Your task to perform on an android device: Search for duracell triple a on newegg, select the first entry, and add it to the cart. Image 0: 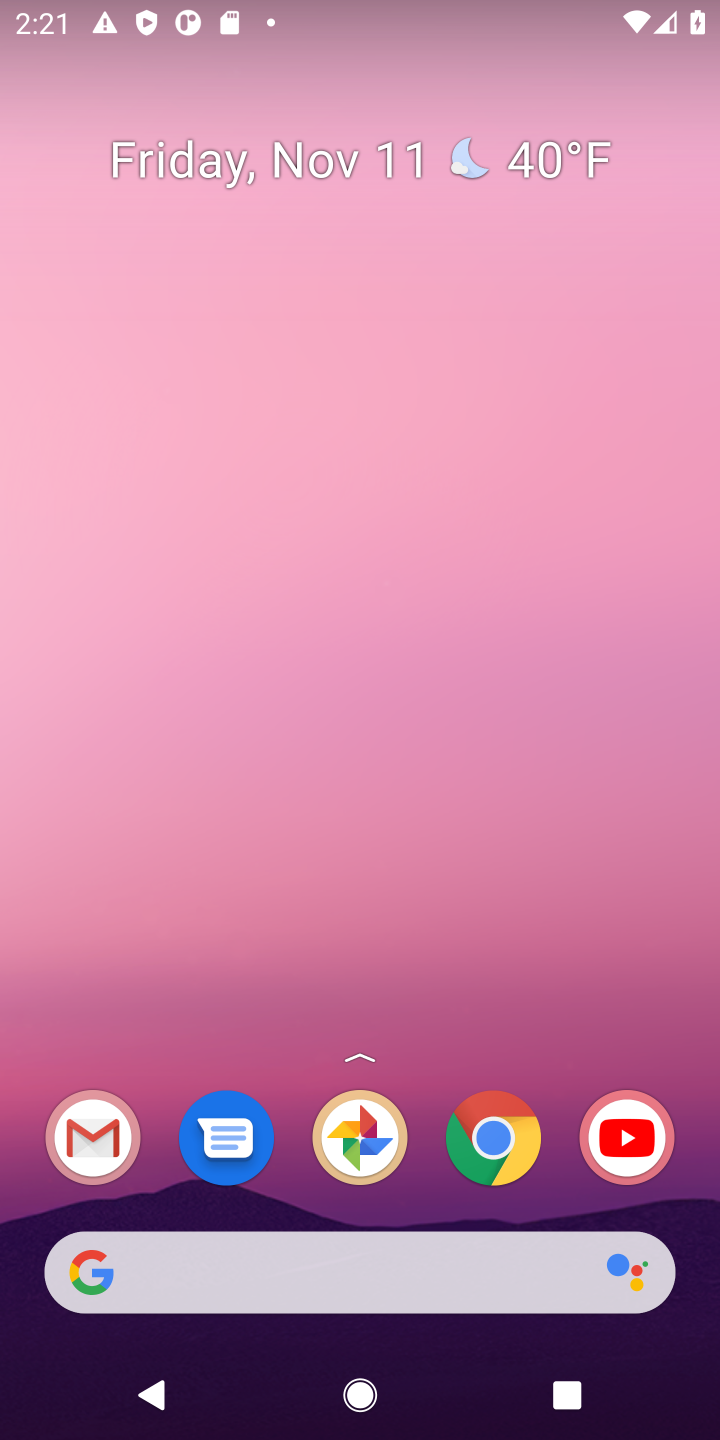
Step 0: click (506, 1116)
Your task to perform on an android device: Search for duracell triple a on newegg, select the first entry, and add it to the cart. Image 1: 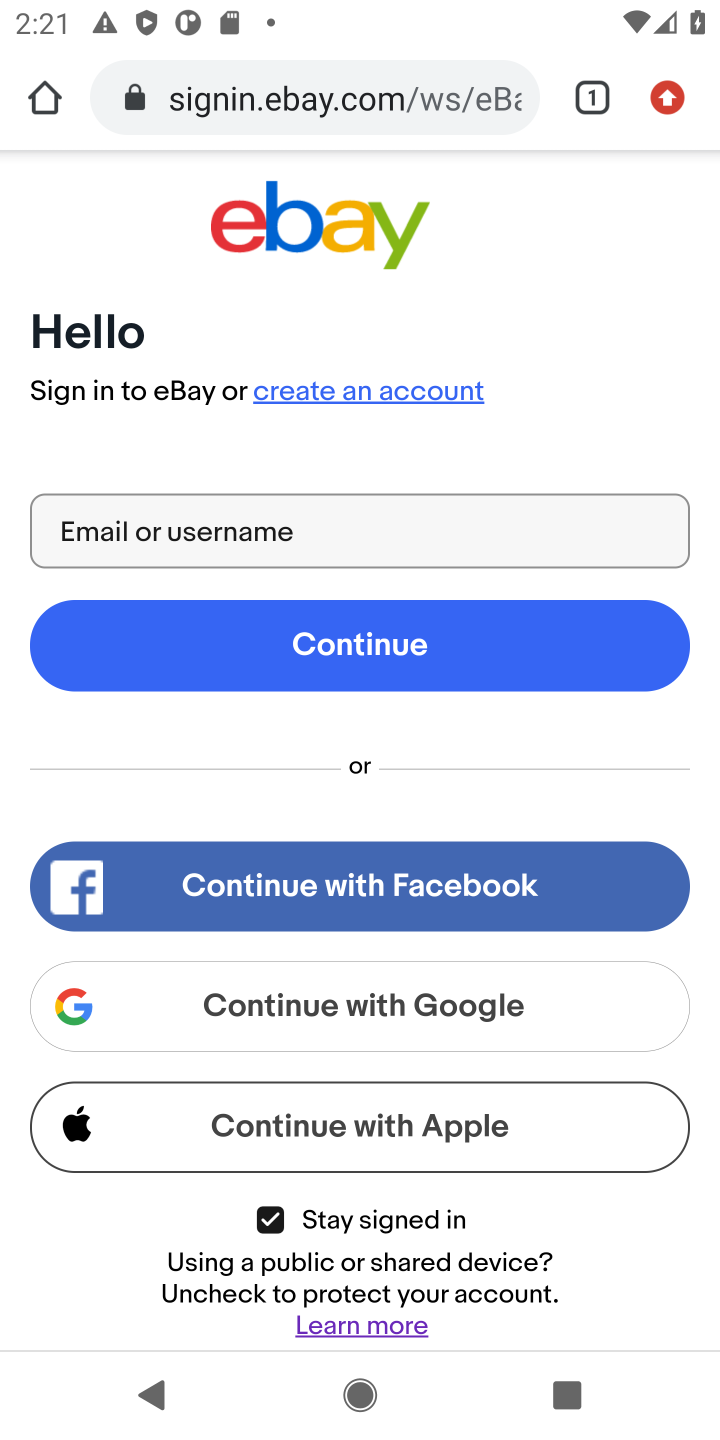
Step 1: click (359, 113)
Your task to perform on an android device: Search for duracell triple a on newegg, select the first entry, and add it to the cart. Image 2: 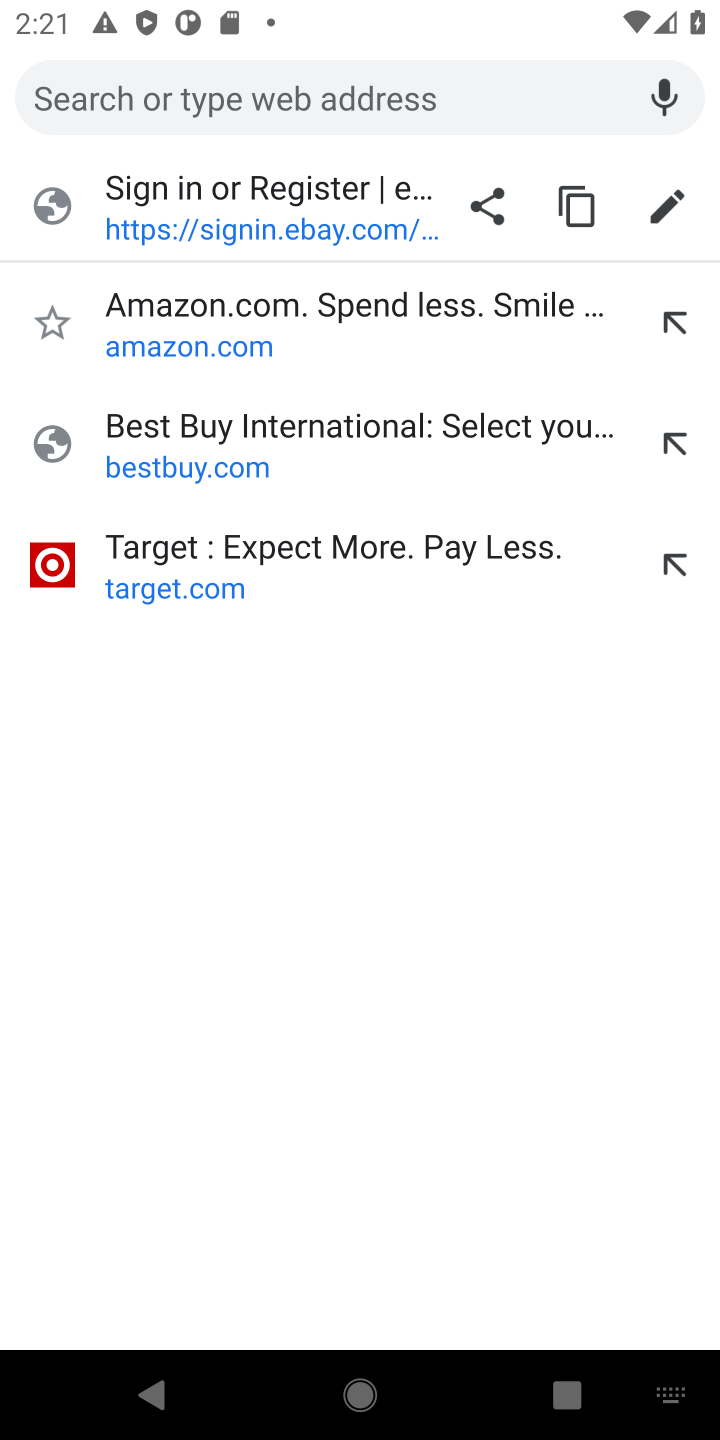
Step 2: type "newegg"
Your task to perform on an android device: Search for duracell triple a on newegg, select the first entry, and add it to the cart. Image 3: 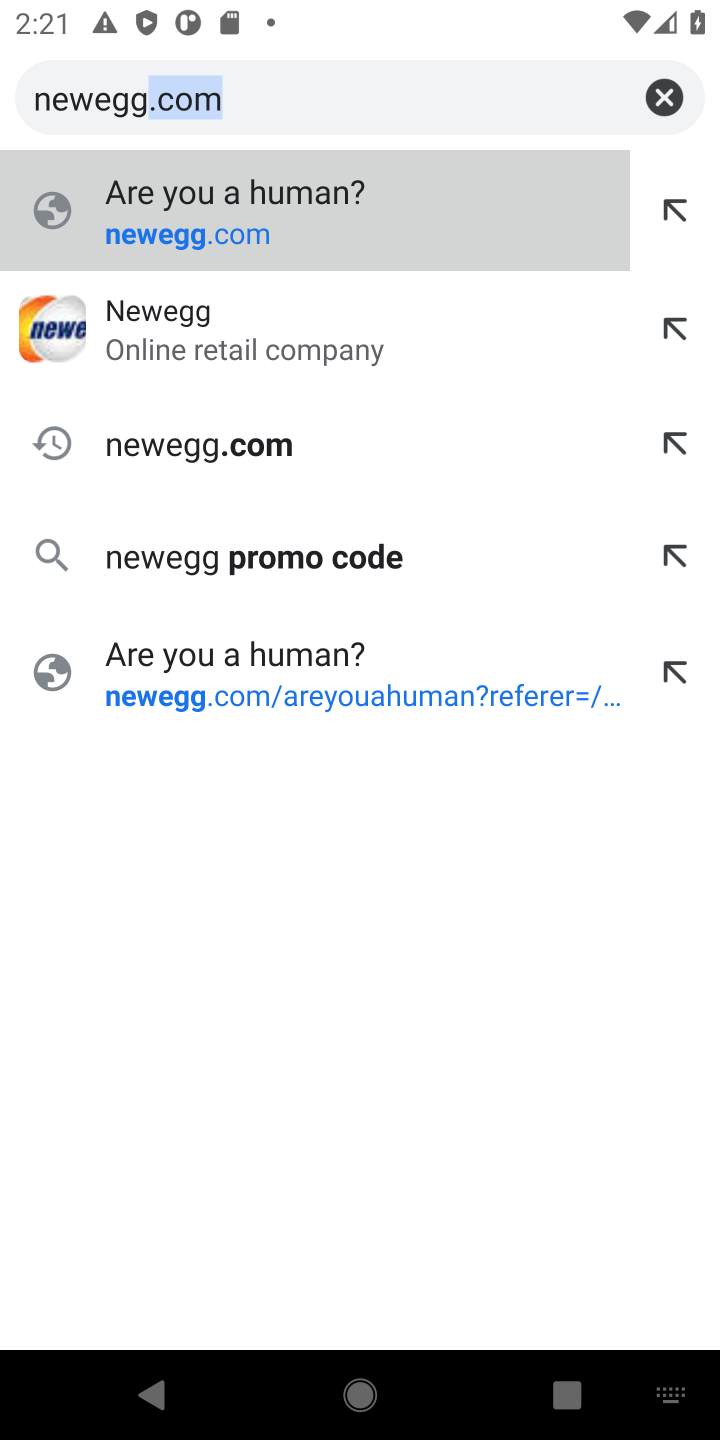
Step 3: press enter
Your task to perform on an android device: Search for duracell triple a on newegg, select the first entry, and add it to the cart. Image 4: 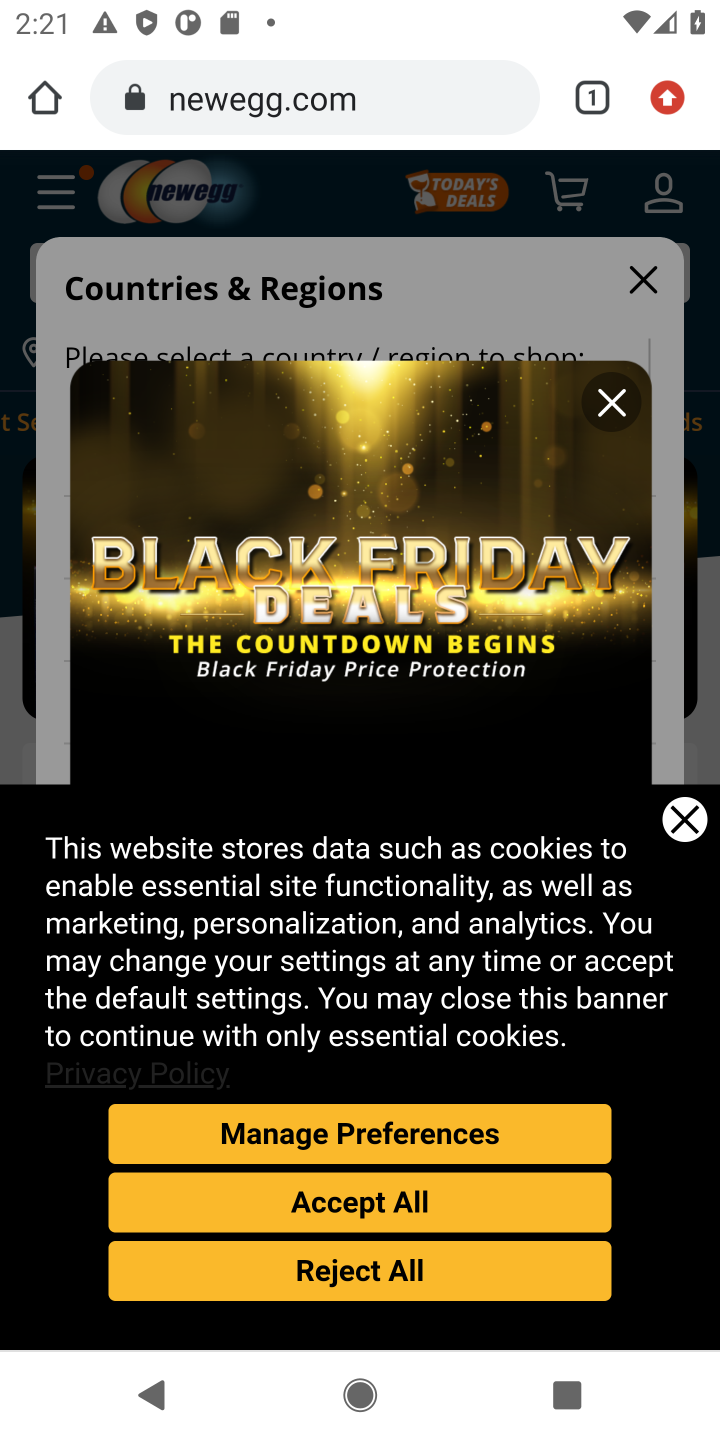
Step 4: click (464, 1209)
Your task to perform on an android device: Search for duracell triple a on newegg, select the first entry, and add it to the cart. Image 5: 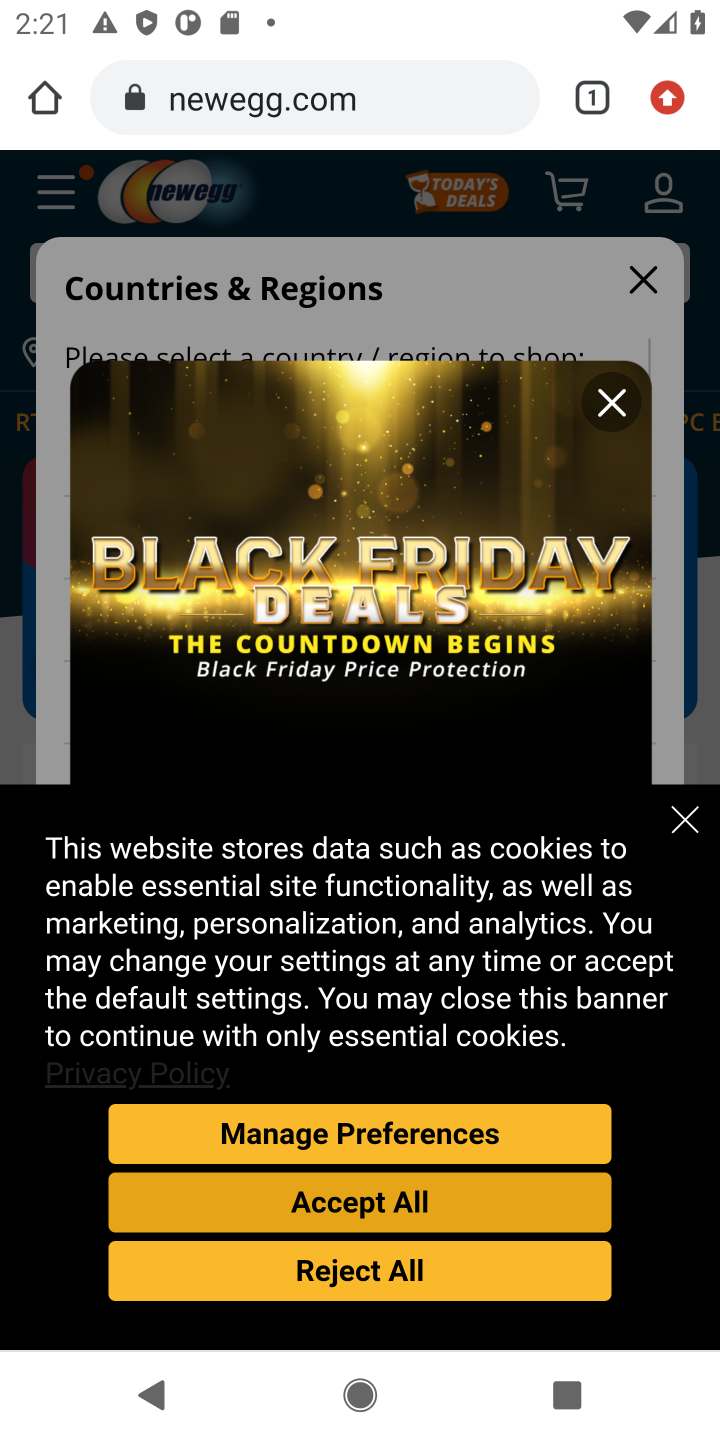
Step 5: click (622, 411)
Your task to perform on an android device: Search for duracell triple a on newegg, select the first entry, and add it to the cart. Image 6: 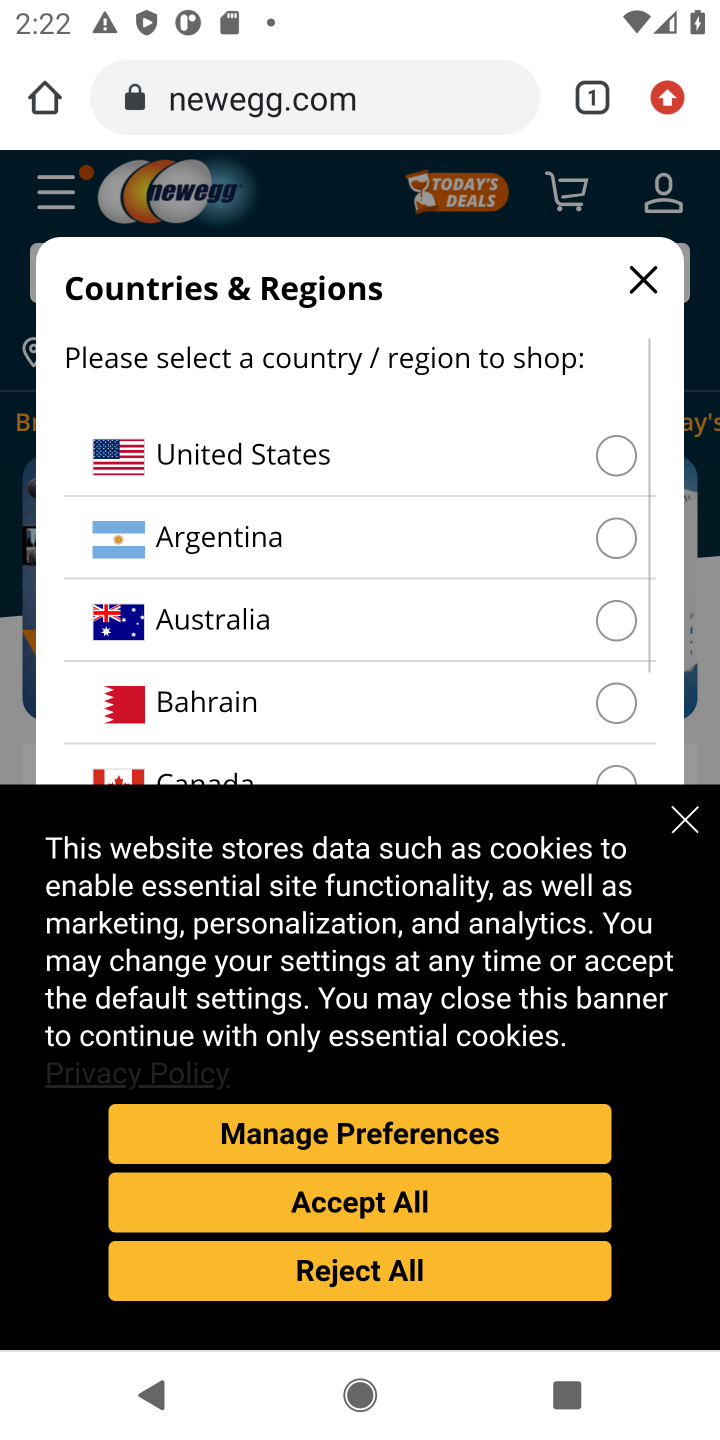
Step 6: click (624, 457)
Your task to perform on an android device: Search for duracell triple a on newegg, select the first entry, and add it to the cart. Image 7: 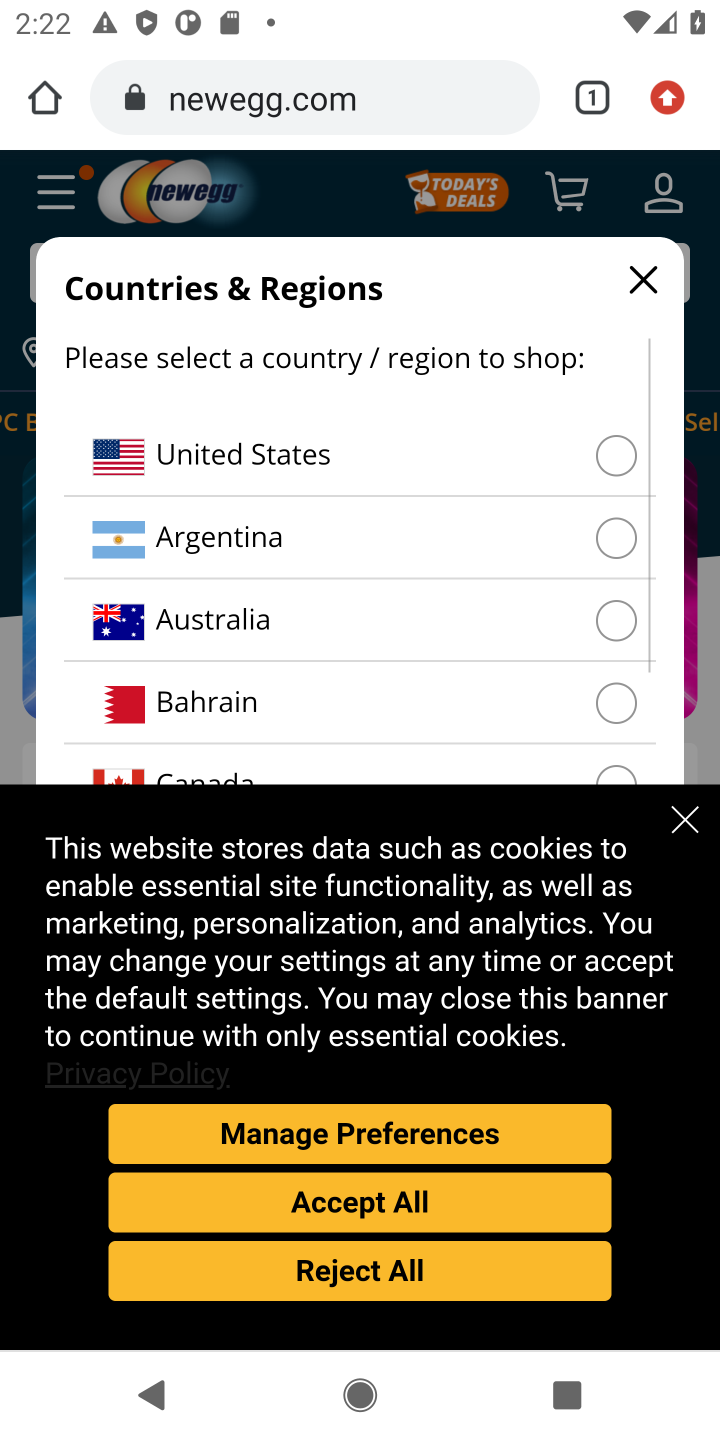
Step 7: click (362, 1180)
Your task to perform on an android device: Search for duracell triple a on newegg, select the first entry, and add it to the cart. Image 8: 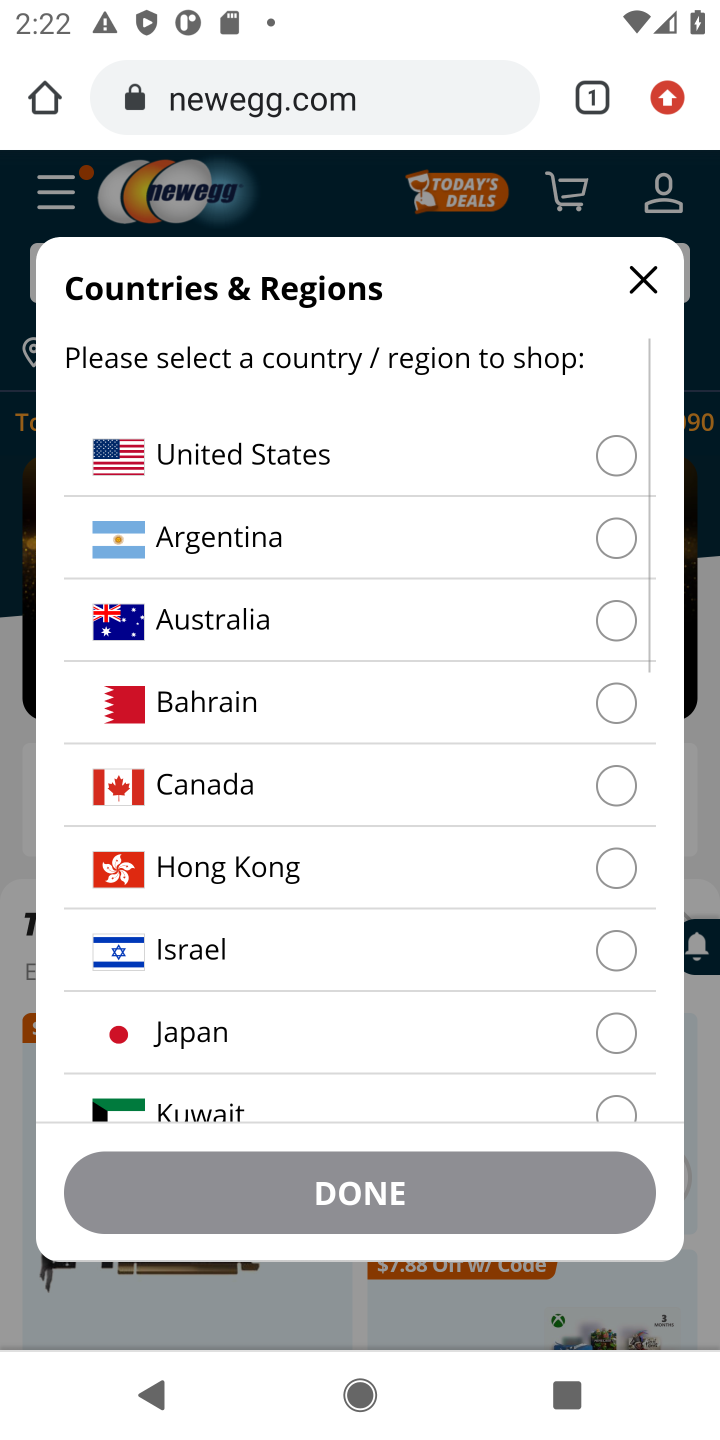
Step 8: click (608, 454)
Your task to perform on an android device: Search for duracell triple a on newegg, select the first entry, and add it to the cart. Image 9: 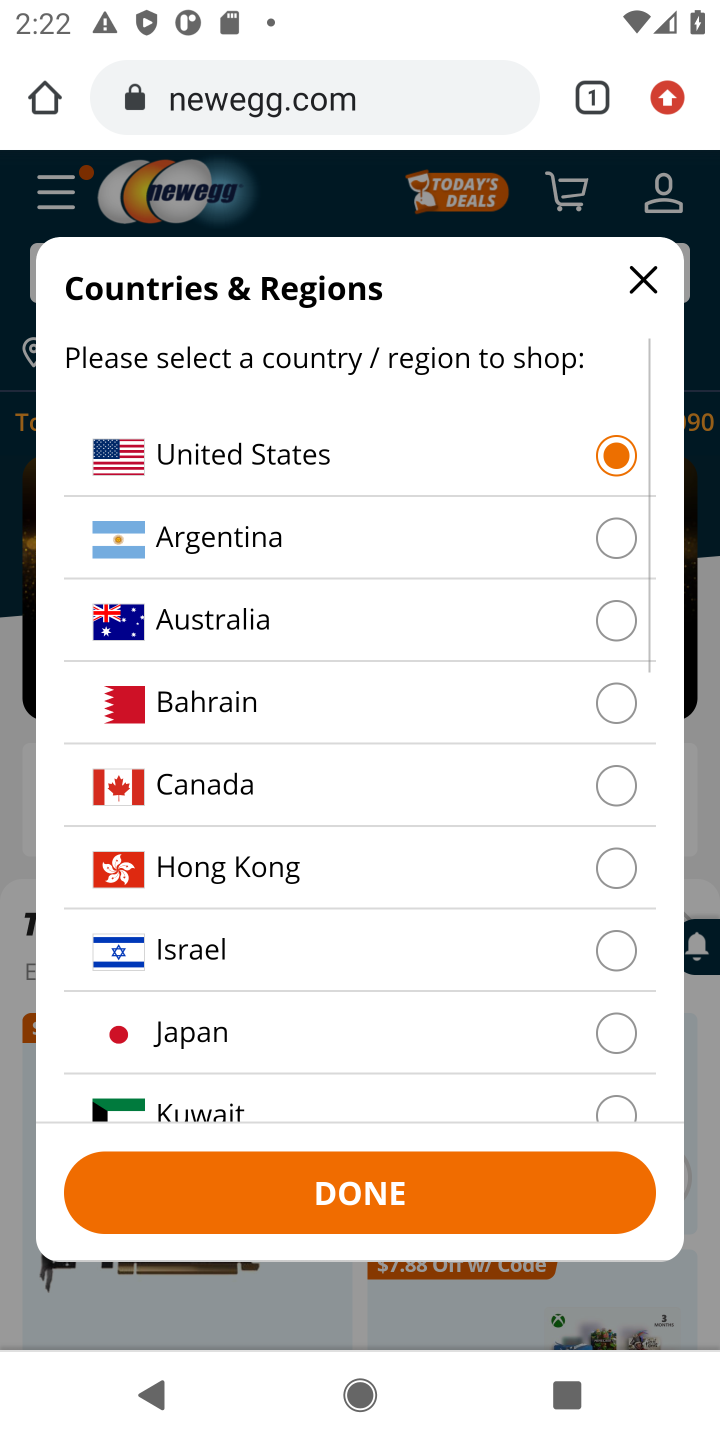
Step 9: click (456, 1170)
Your task to perform on an android device: Search for duracell triple a on newegg, select the first entry, and add it to the cart. Image 10: 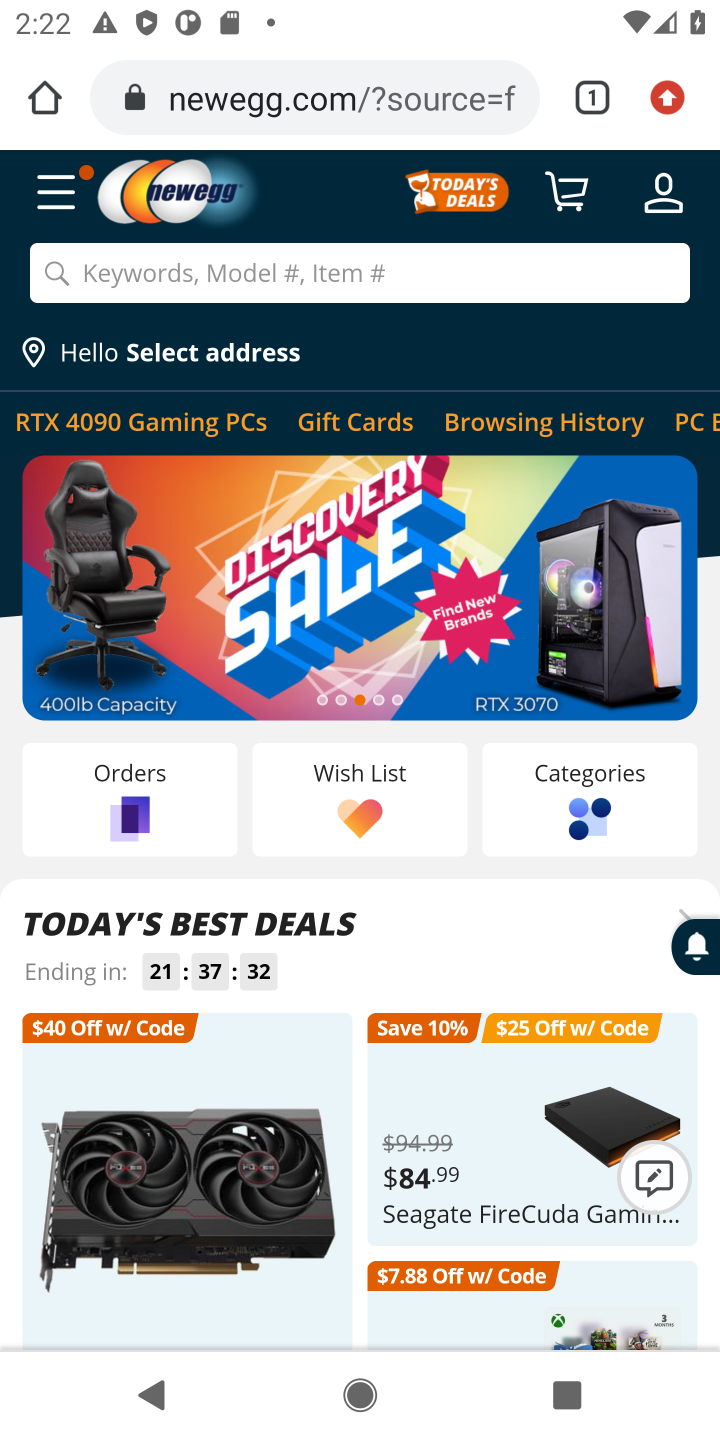
Step 10: click (476, 253)
Your task to perform on an android device: Search for duracell triple a on newegg, select the first entry, and add it to the cart. Image 11: 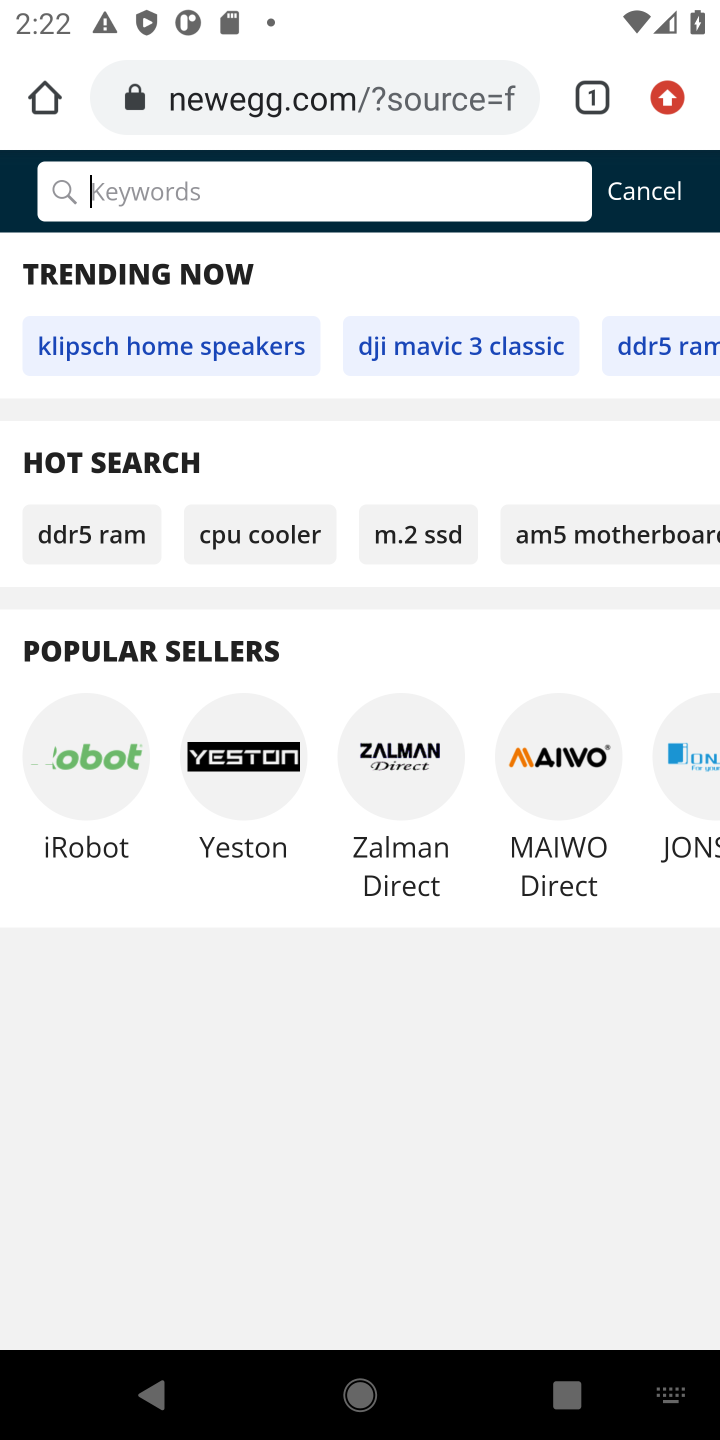
Step 11: press enter
Your task to perform on an android device: Search for duracell triple a on newegg, select the first entry, and add it to the cart. Image 12: 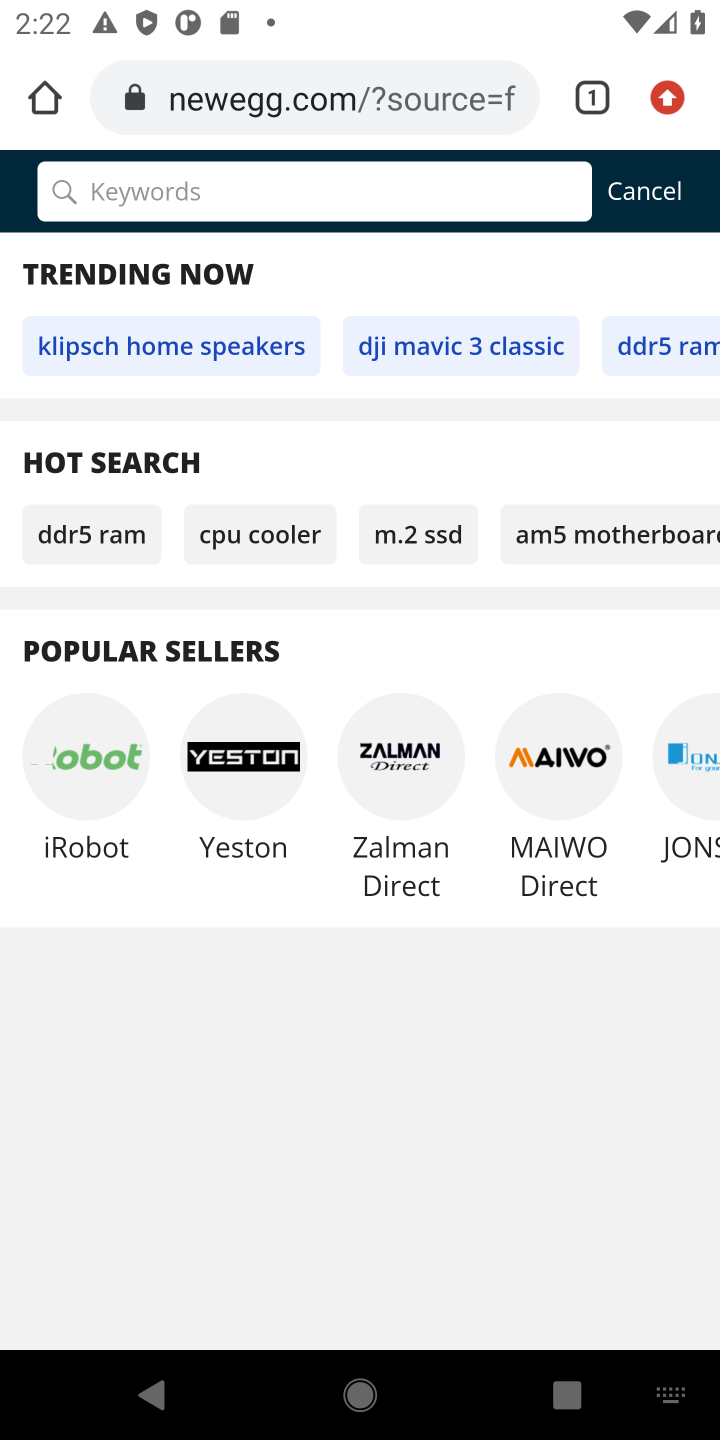
Step 12: type "duracell triple a"
Your task to perform on an android device: Search for duracell triple a on newegg, select the first entry, and add it to the cart. Image 13: 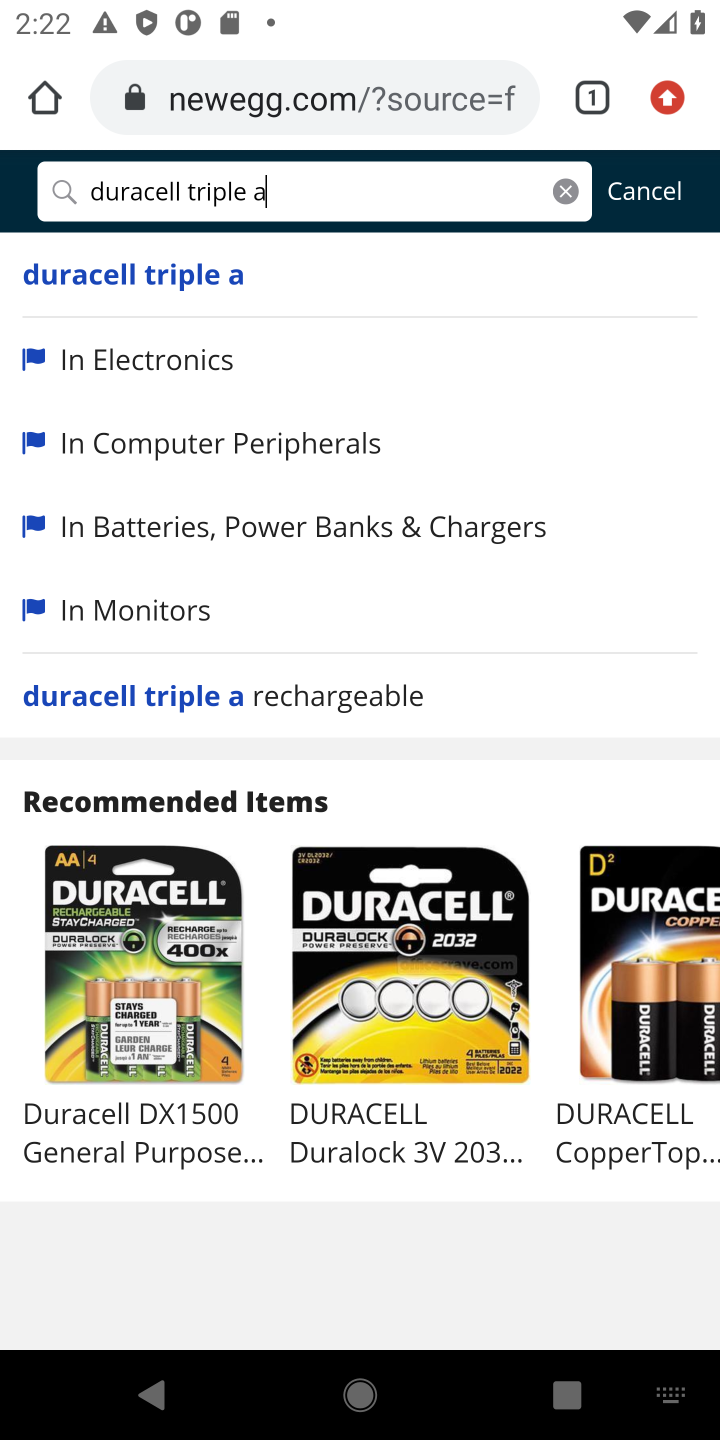
Step 13: click (525, 201)
Your task to perform on an android device: Search for duracell triple a on newegg, select the first entry, and add it to the cart. Image 14: 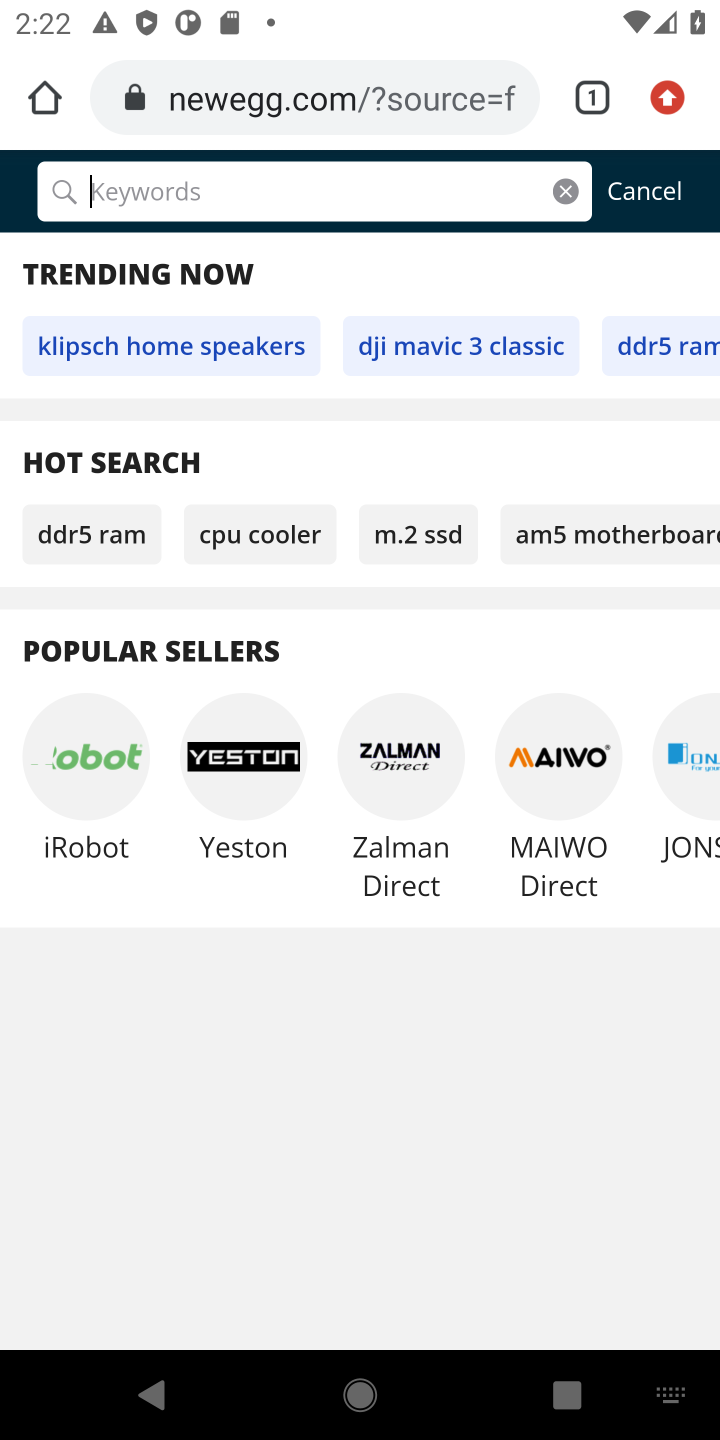
Step 14: click (197, 275)
Your task to perform on an android device: Search for duracell triple a on newegg, select the first entry, and add it to the cart. Image 15: 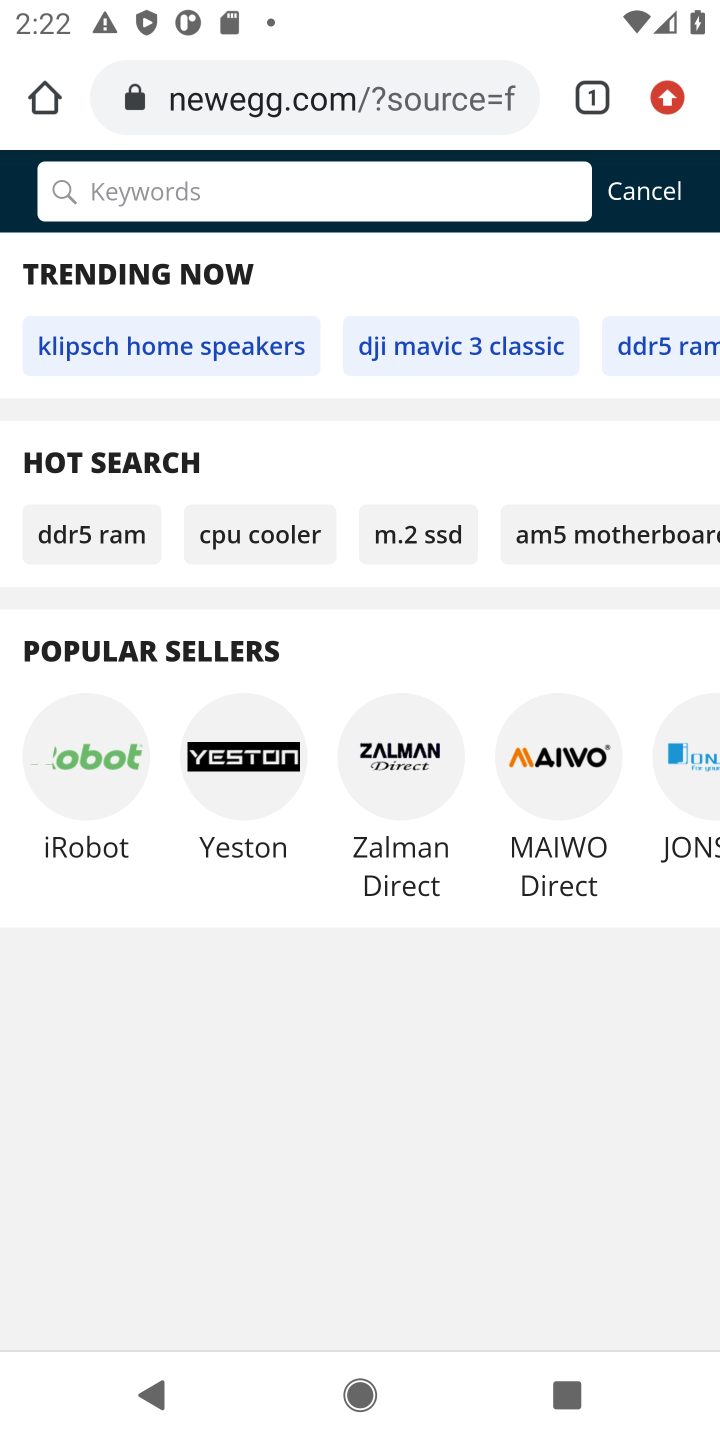
Step 15: click (406, 190)
Your task to perform on an android device: Search for duracell triple a on newegg, select the first entry, and add it to the cart. Image 16: 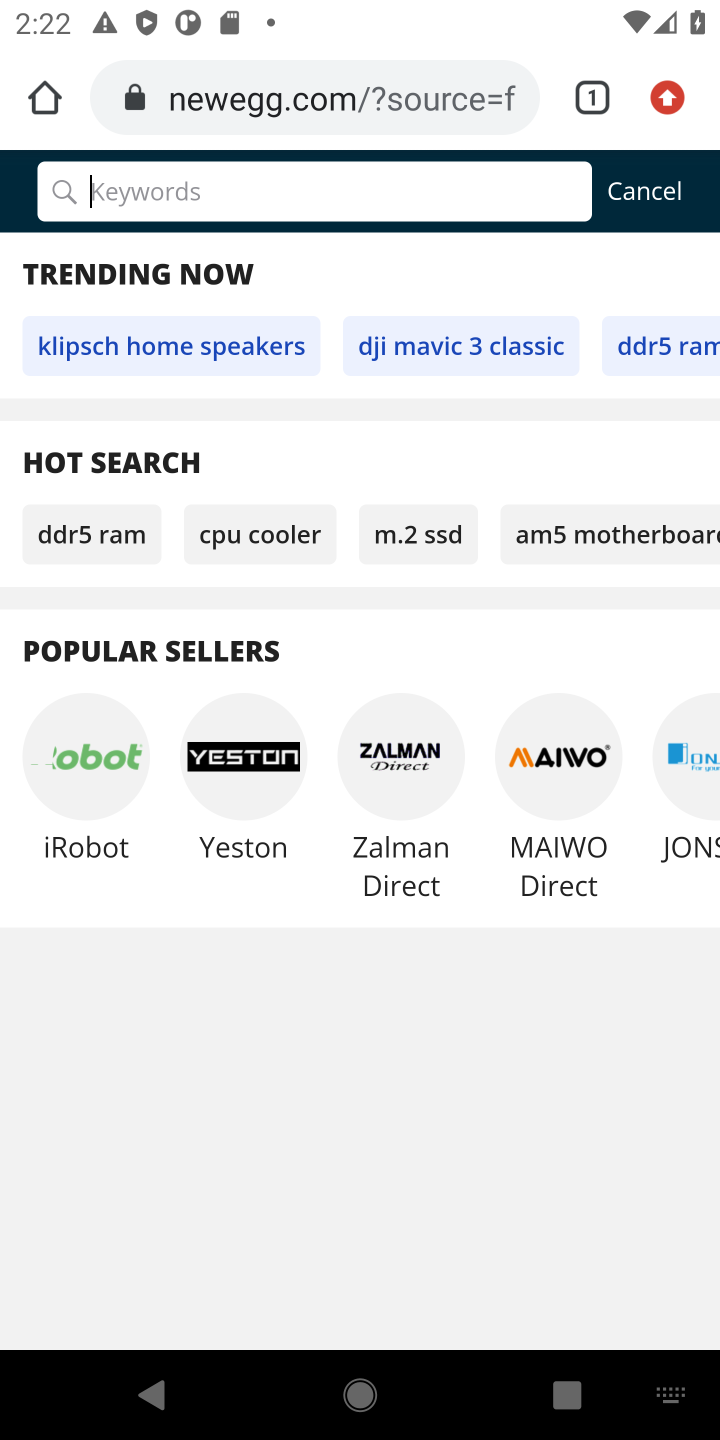
Step 16: type "duracell triple a"
Your task to perform on an android device: Search for duracell triple a on newegg, select the first entry, and add it to the cart. Image 17: 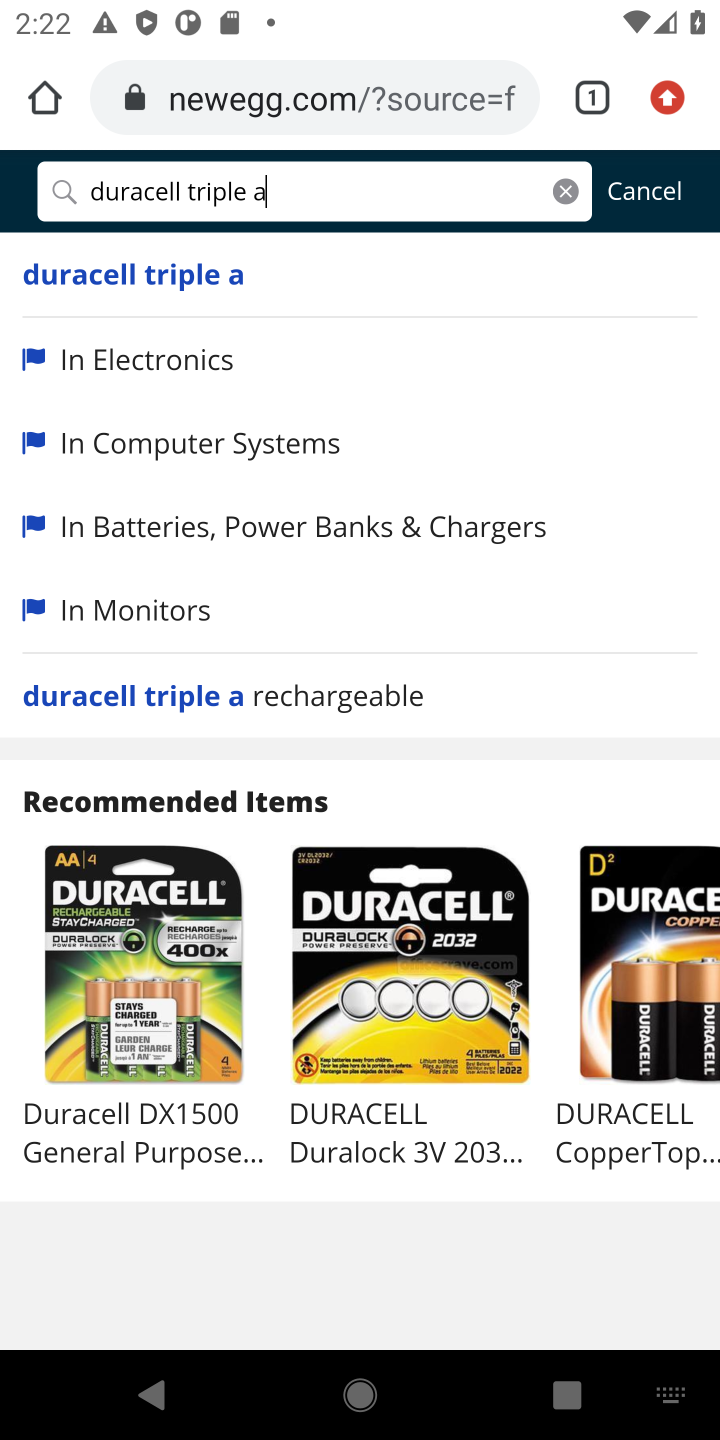
Step 17: click (186, 270)
Your task to perform on an android device: Search for duracell triple a on newegg, select the first entry, and add it to the cart. Image 18: 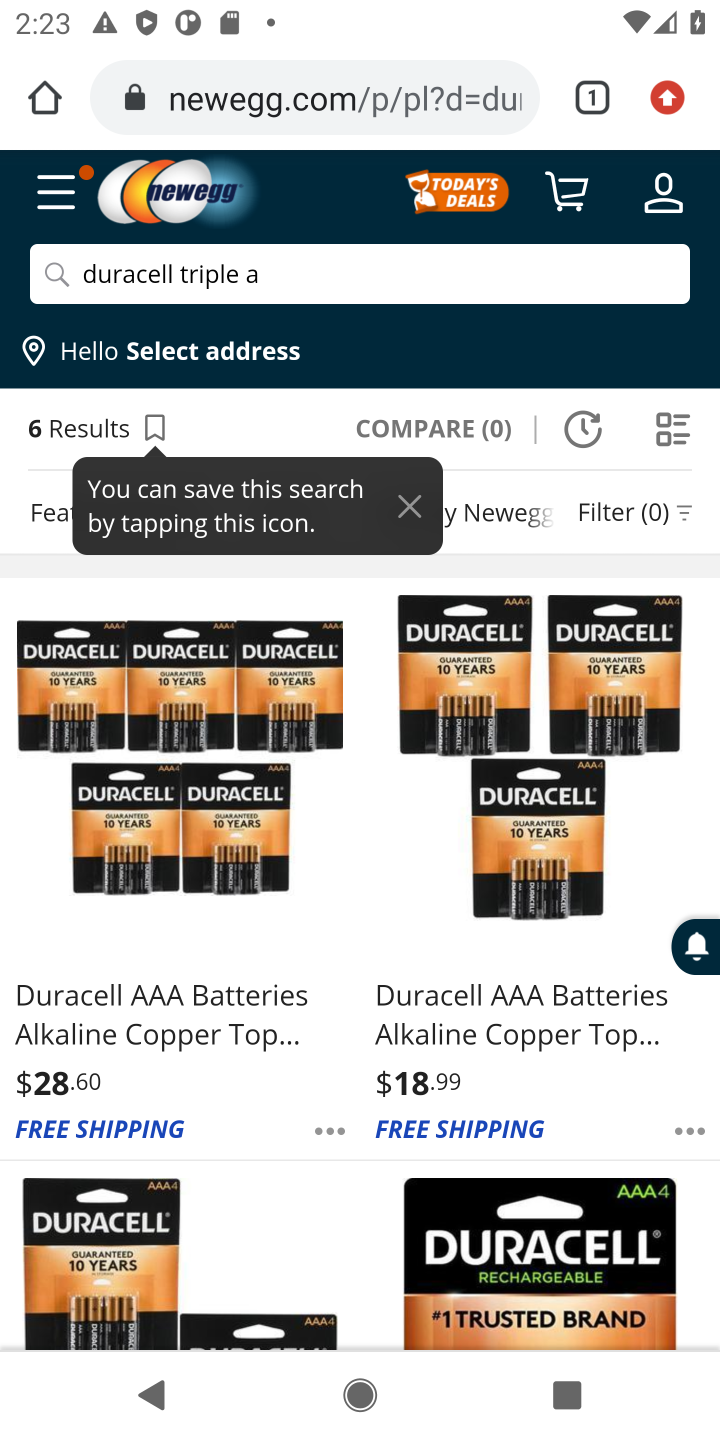
Step 18: click (160, 768)
Your task to perform on an android device: Search for duracell triple a on newegg, select the first entry, and add it to the cart. Image 19: 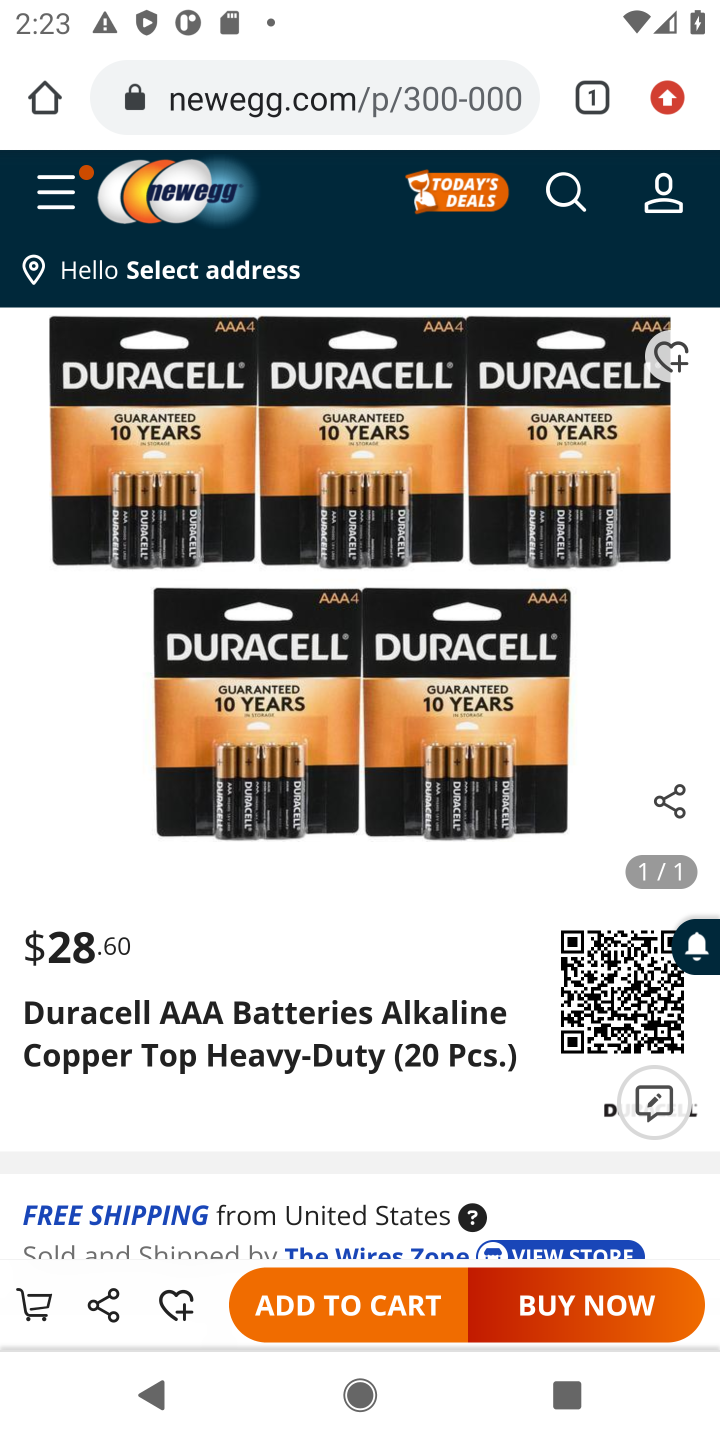
Step 19: click (318, 1305)
Your task to perform on an android device: Search for duracell triple a on newegg, select the first entry, and add it to the cart. Image 20: 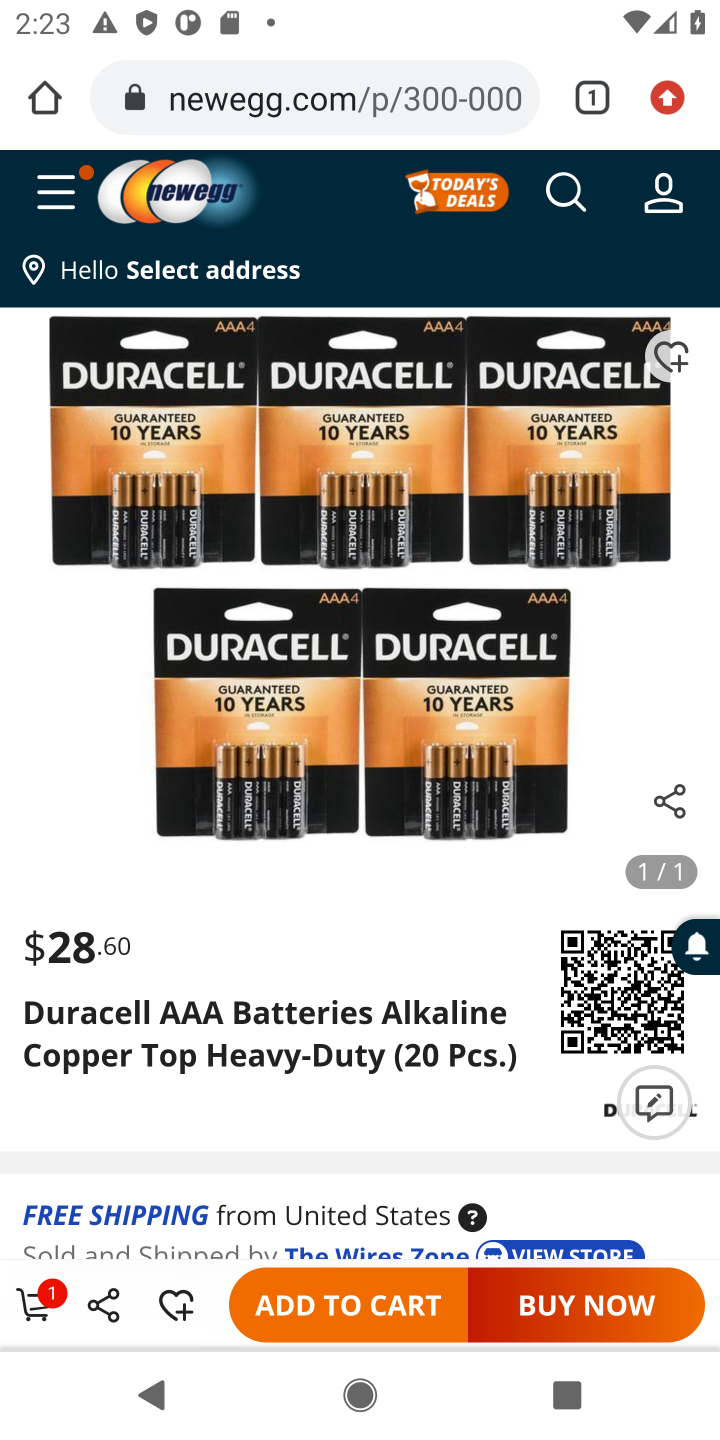
Step 20: drag from (364, 1126) to (279, 518)
Your task to perform on an android device: Search for duracell triple a on newegg, select the first entry, and add it to the cart. Image 21: 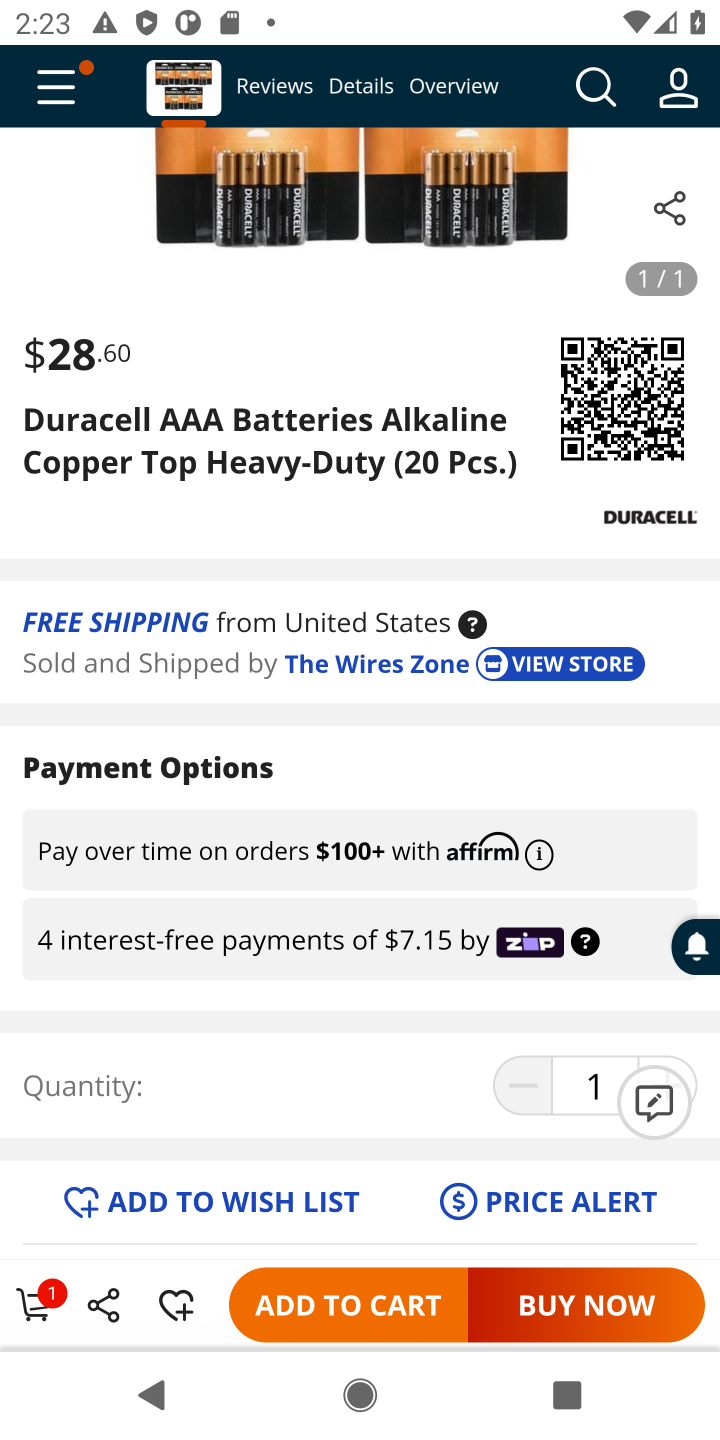
Step 21: click (32, 1308)
Your task to perform on an android device: Search for duracell triple a on newegg, select the first entry, and add it to the cart. Image 22: 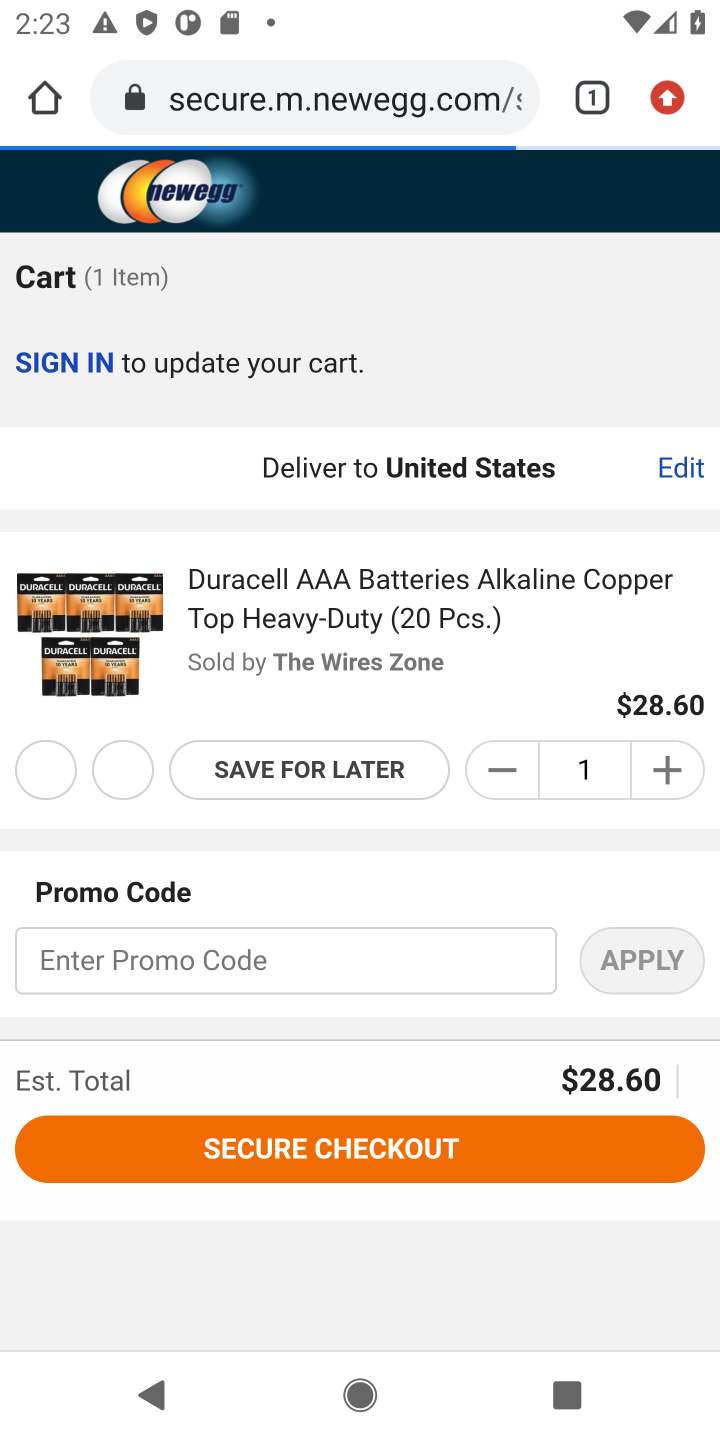
Step 22: task complete